Your task to perform on an android device: Open Google Maps and go to "Timeline" Image 0: 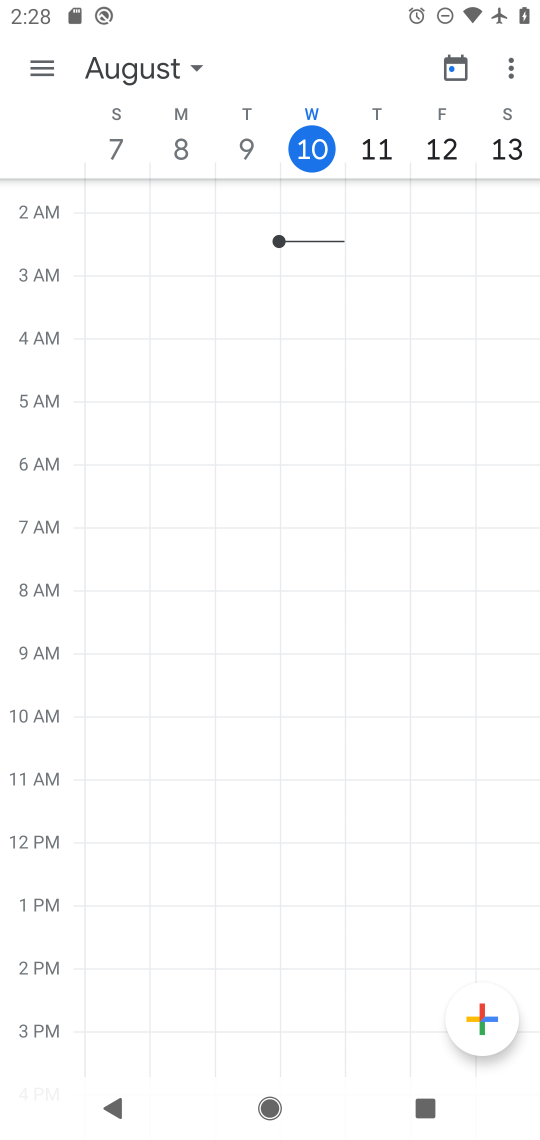
Step 0: press home button
Your task to perform on an android device: Open Google Maps and go to "Timeline" Image 1: 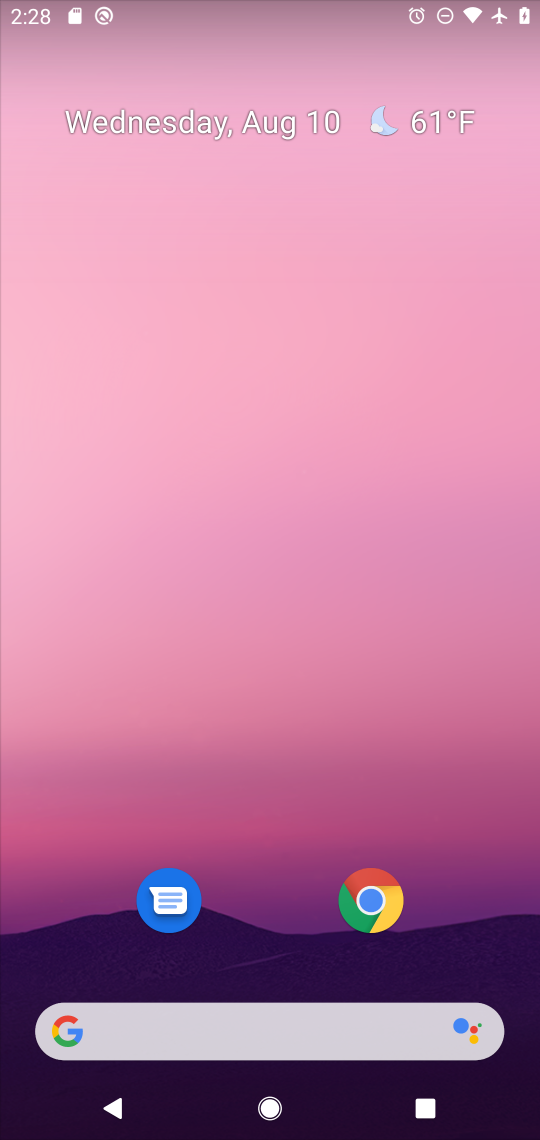
Step 1: drag from (263, 902) to (323, 38)
Your task to perform on an android device: Open Google Maps and go to "Timeline" Image 2: 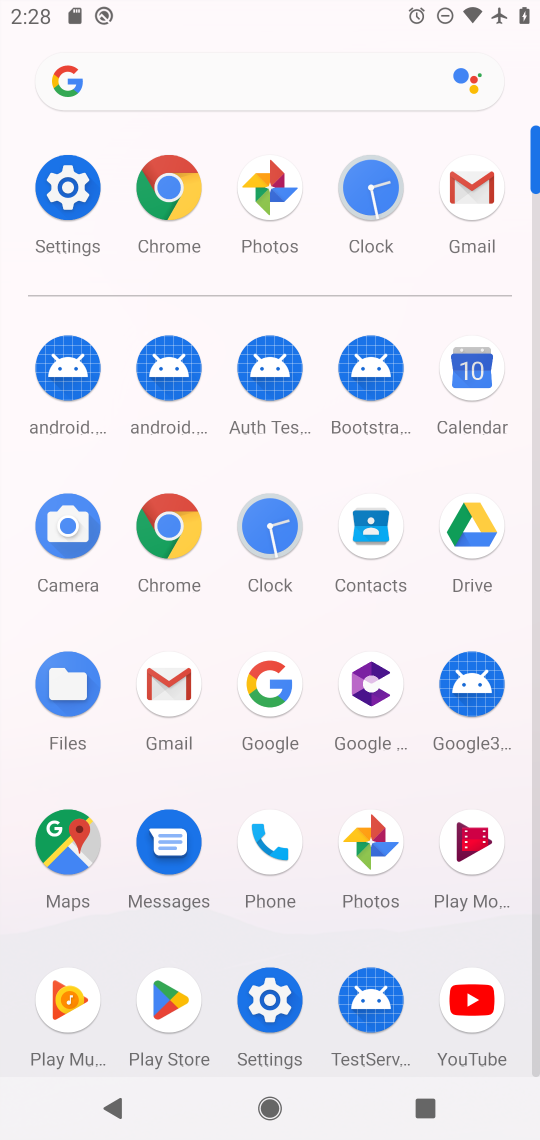
Step 2: click (54, 832)
Your task to perform on an android device: Open Google Maps and go to "Timeline" Image 3: 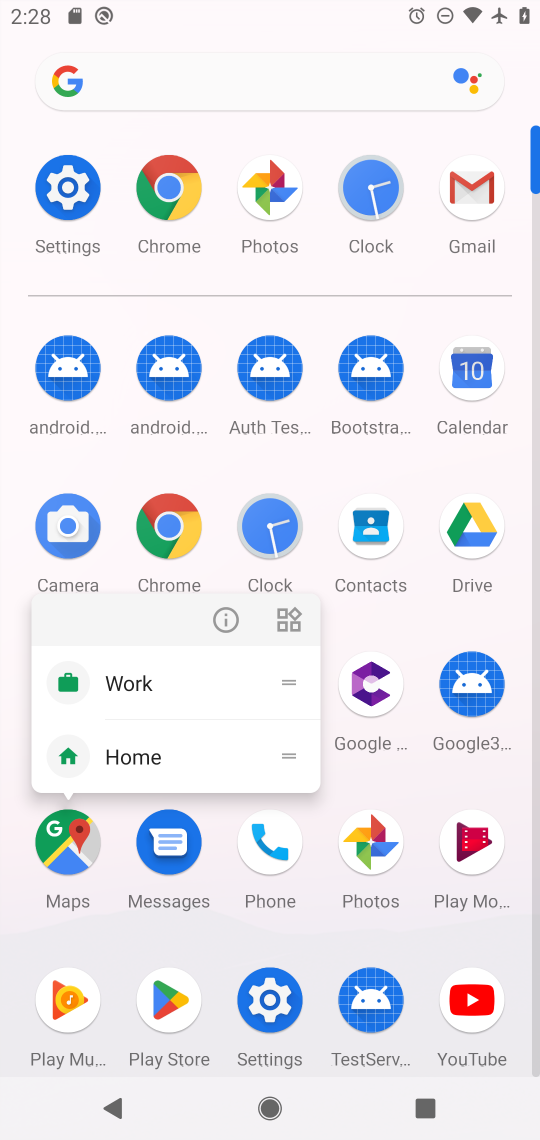
Step 3: click (72, 847)
Your task to perform on an android device: Open Google Maps and go to "Timeline" Image 4: 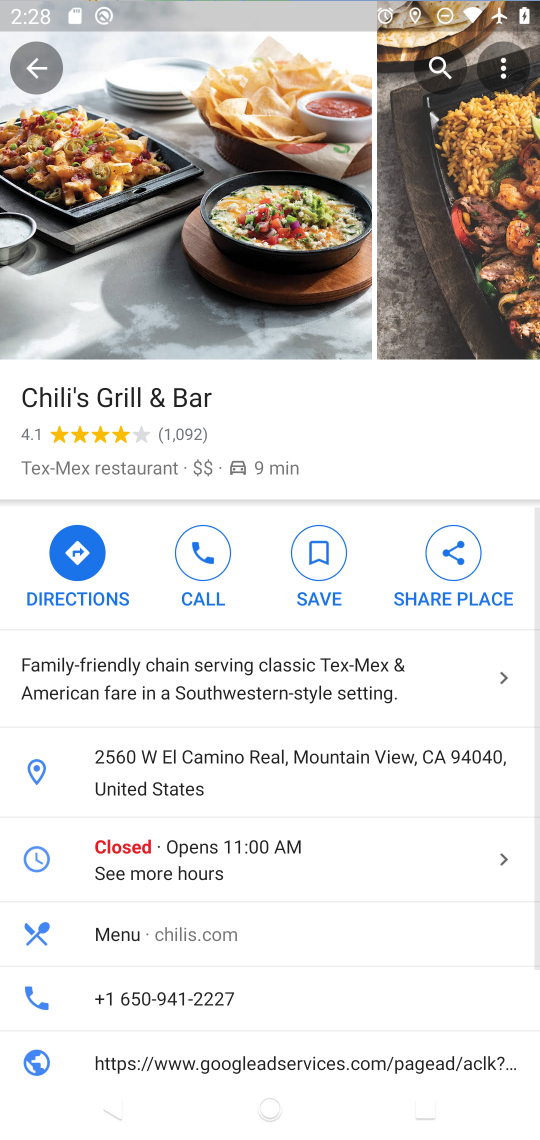
Step 4: drag from (341, 506) to (342, 1009)
Your task to perform on an android device: Open Google Maps and go to "Timeline" Image 5: 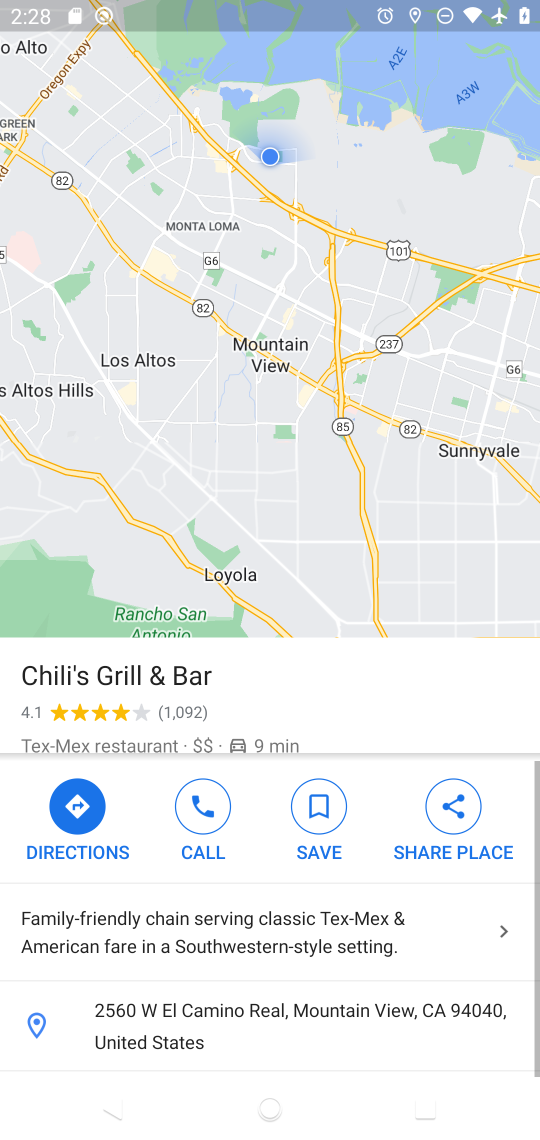
Step 5: drag from (330, 273) to (412, 694)
Your task to perform on an android device: Open Google Maps and go to "Timeline" Image 6: 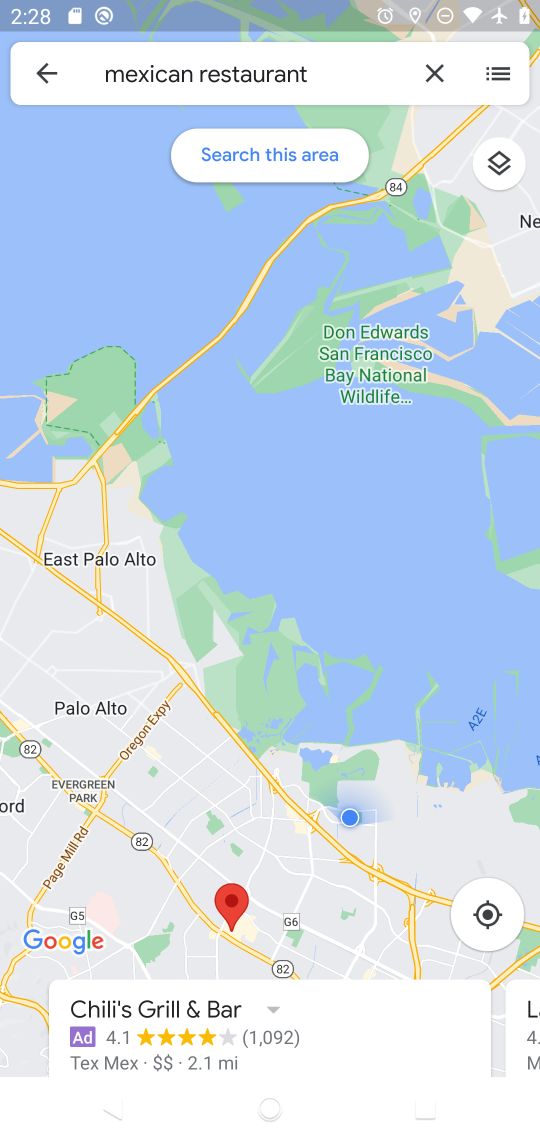
Step 6: click (44, 59)
Your task to perform on an android device: Open Google Maps and go to "Timeline" Image 7: 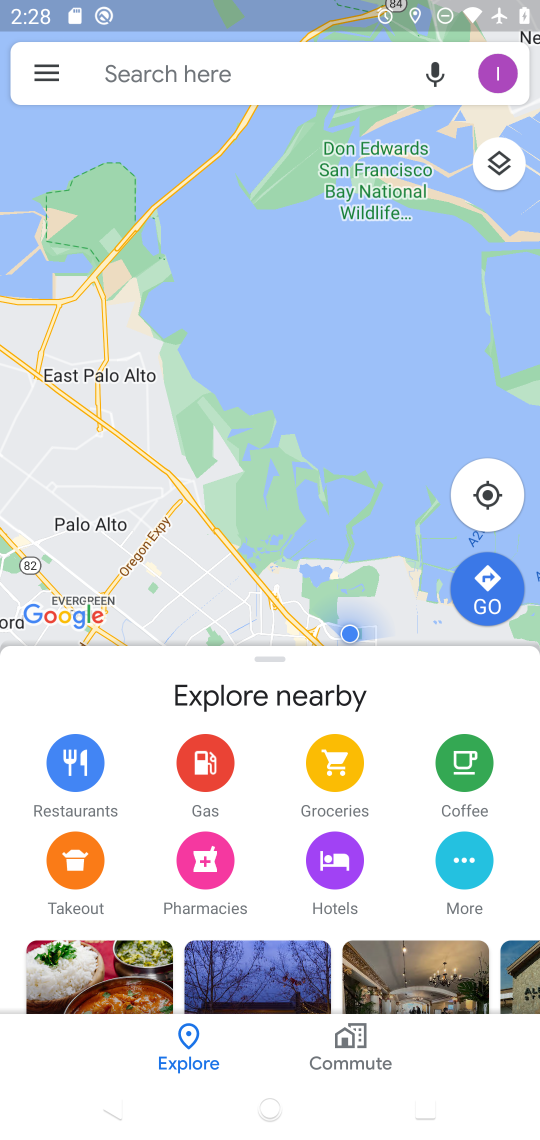
Step 7: click (44, 59)
Your task to perform on an android device: Open Google Maps and go to "Timeline" Image 8: 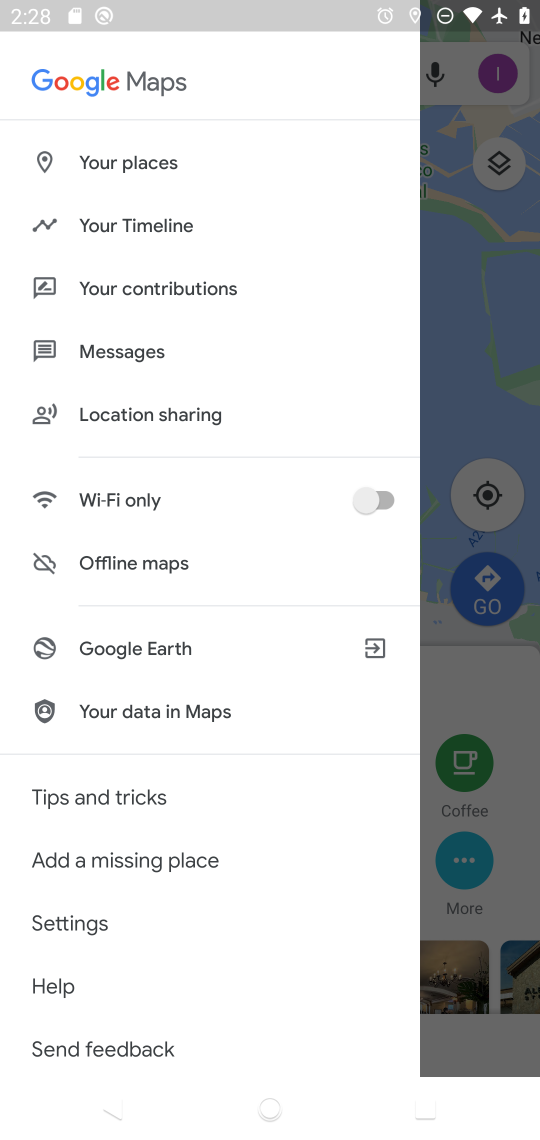
Step 8: click (102, 221)
Your task to perform on an android device: Open Google Maps and go to "Timeline" Image 9: 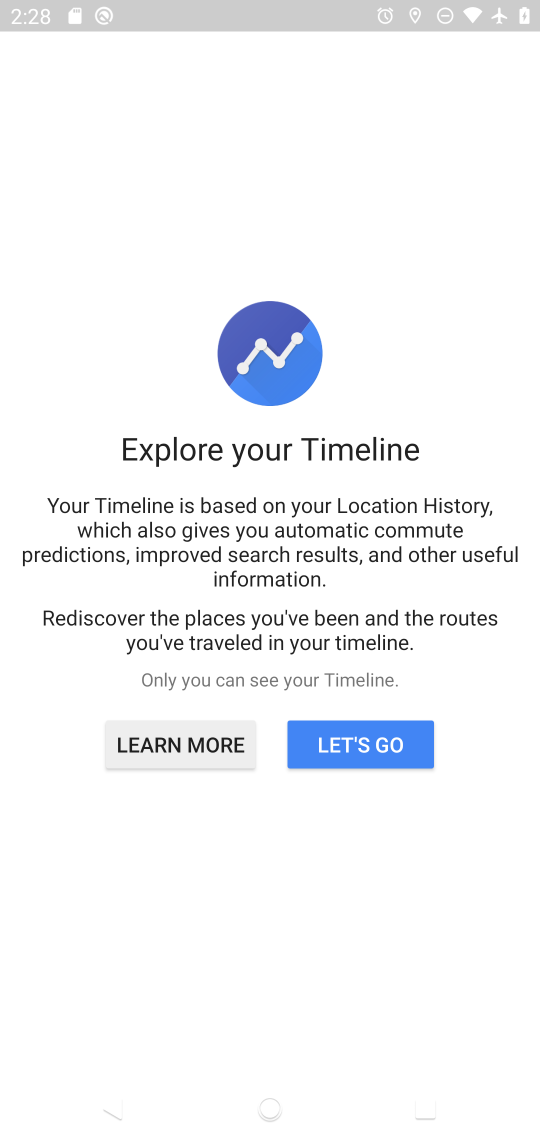
Step 9: click (410, 744)
Your task to perform on an android device: Open Google Maps and go to "Timeline" Image 10: 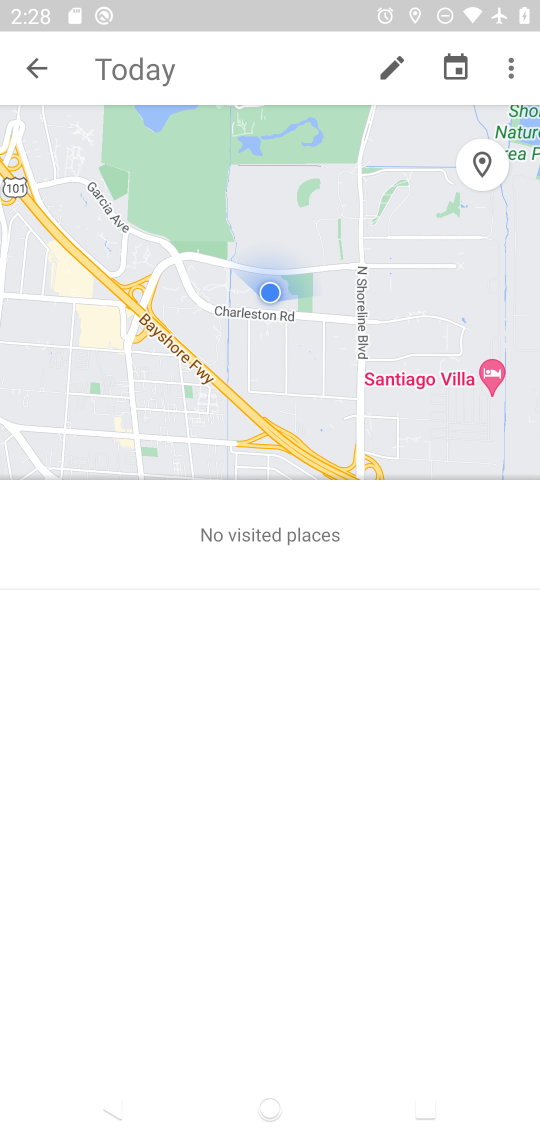
Step 10: task complete